Your task to perform on an android device: turn off notifications in google photos Image 0: 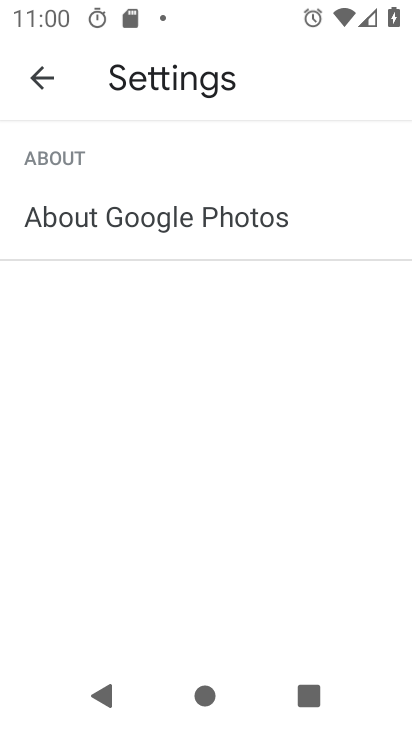
Step 0: press home button
Your task to perform on an android device: turn off notifications in google photos Image 1: 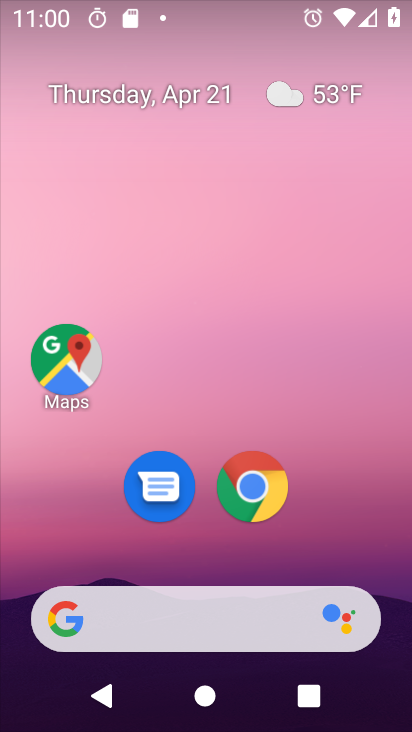
Step 1: drag from (388, 576) to (350, 172)
Your task to perform on an android device: turn off notifications in google photos Image 2: 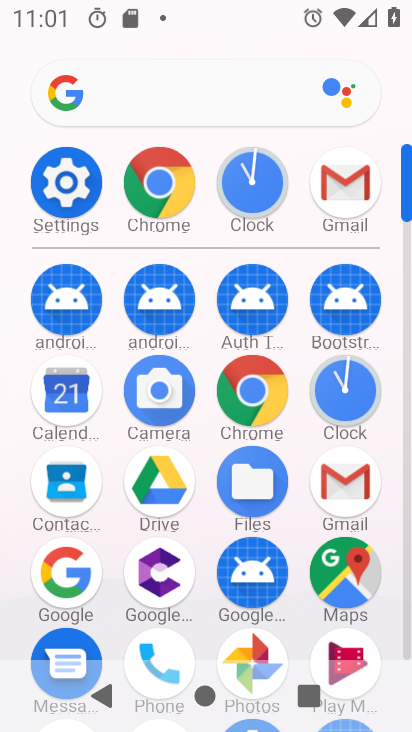
Step 2: click (259, 637)
Your task to perform on an android device: turn off notifications in google photos Image 3: 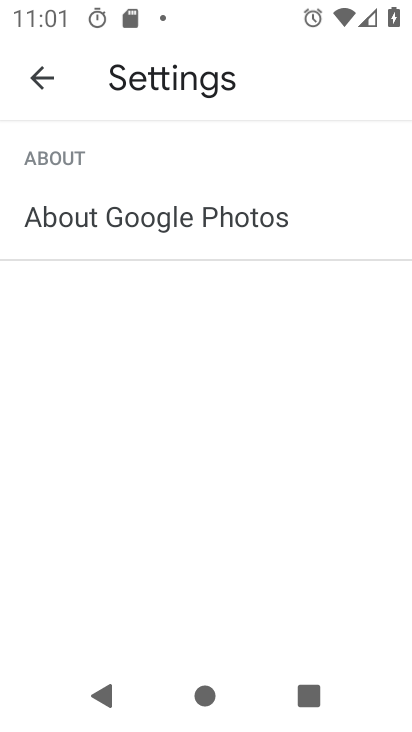
Step 3: click (39, 80)
Your task to perform on an android device: turn off notifications in google photos Image 4: 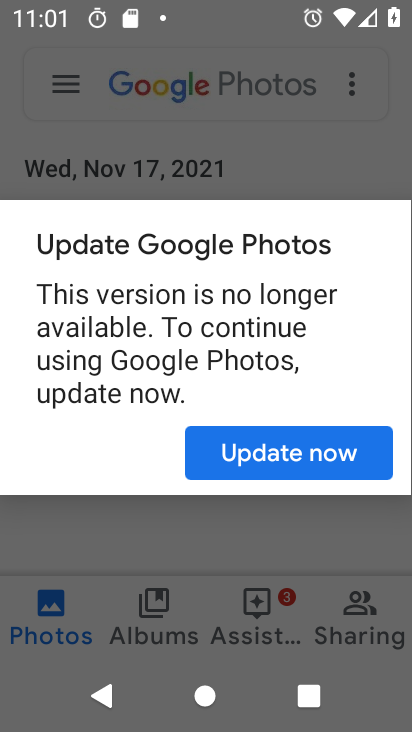
Step 4: click (285, 445)
Your task to perform on an android device: turn off notifications in google photos Image 5: 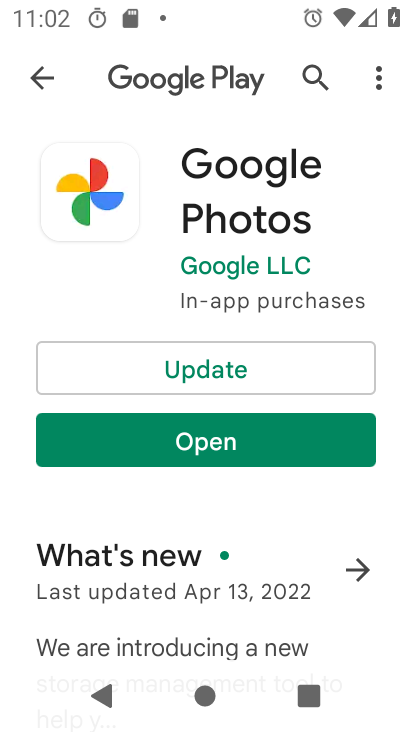
Step 5: click (245, 374)
Your task to perform on an android device: turn off notifications in google photos Image 6: 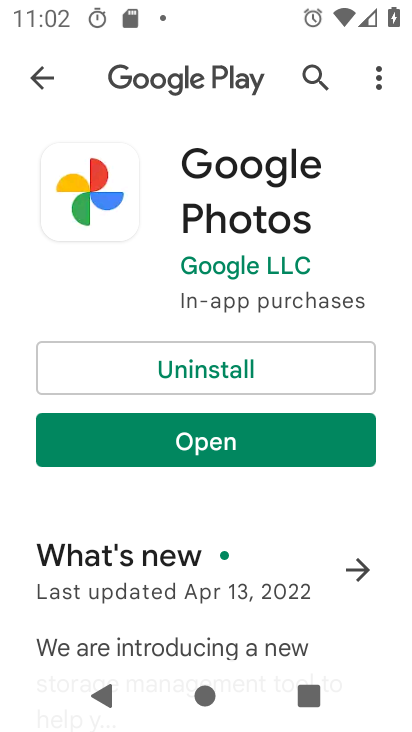
Step 6: click (253, 441)
Your task to perform on an android device: turn off notifications in google photos Image 7: 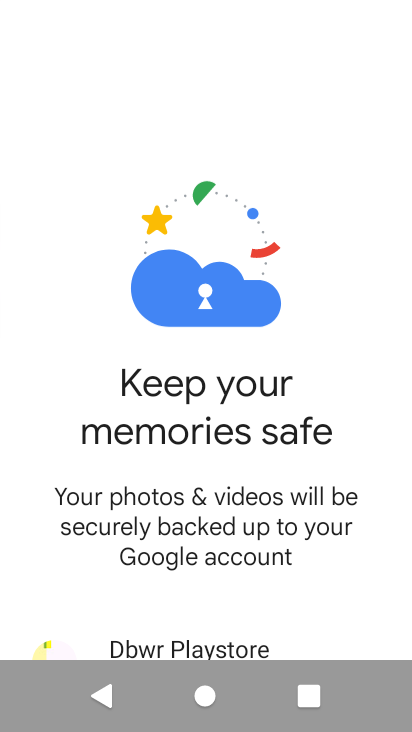
Step 7: press back button
Your task to perform on an android device: turn off notifications in google photos Image 8: 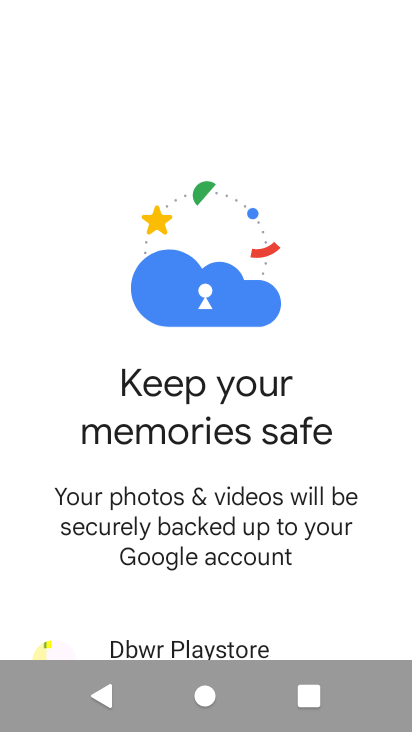
Step 8: drag from (368, 623) to (350, 396)
Your task to perform on an android device: turn off notifications in google photos Image 9: 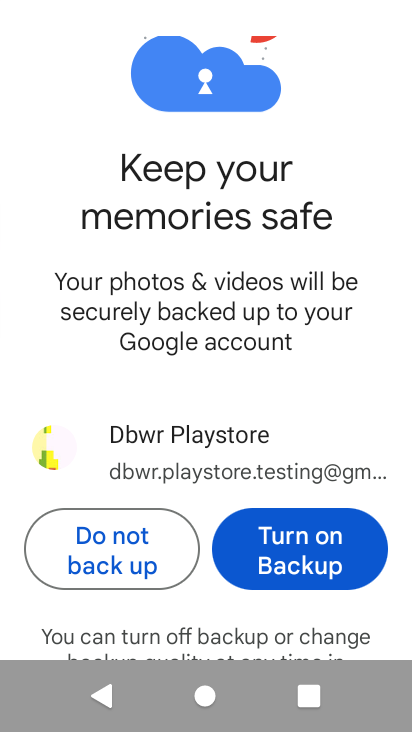
Step 9: click (305, 553)
Your task to perform on an android device: turn off notifications in google photos Image 10: 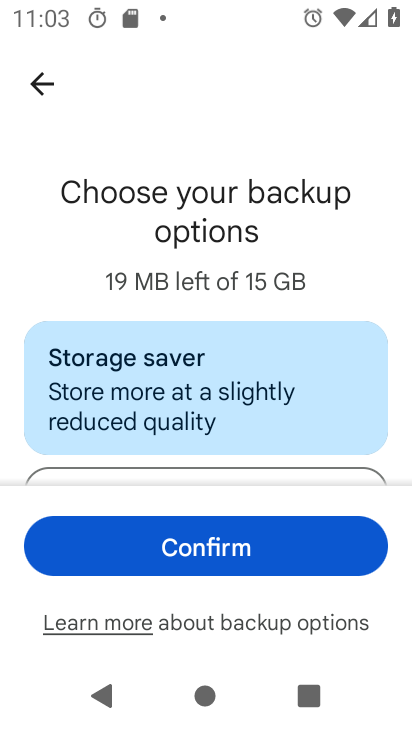
Step 10: click (268, 545)
Your task to perform on an android device: turn off notifications in google photos Image 11: 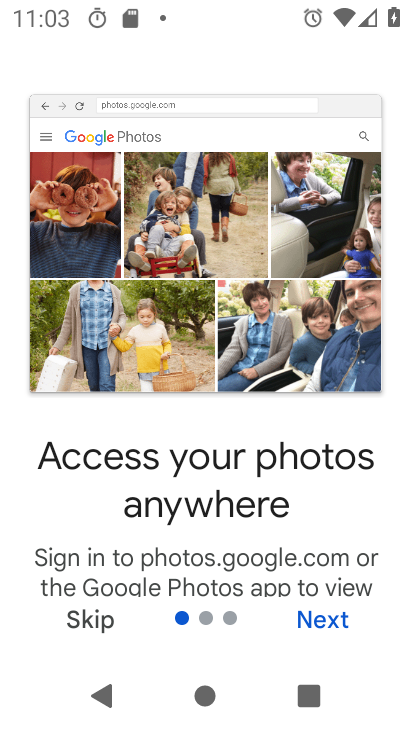
Step 11: click (316, 611)
Your task to perform on an android device: turn off notifications in google photos Image 12: 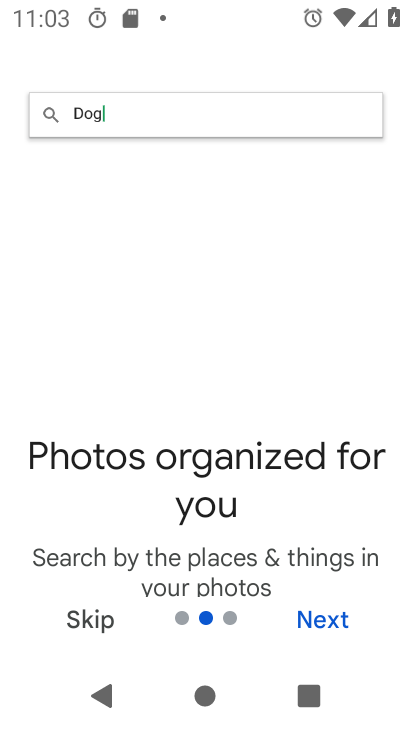
Step 12: click (309, 604)
Your task to perform on an android device: turn off notifications in google photos Image 13: 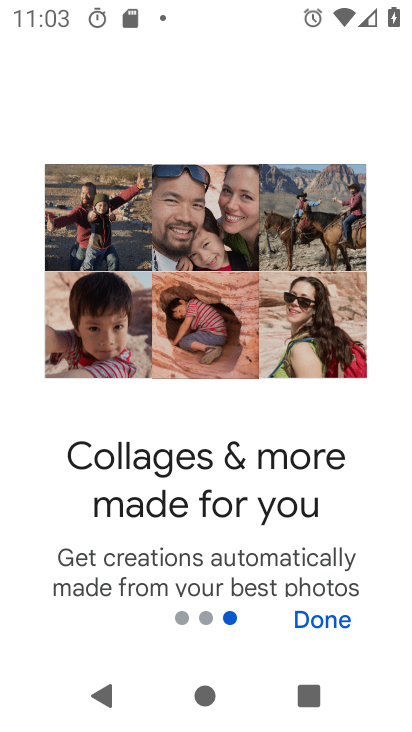
Step 13: click (309, 607)
Your task to perform on an android device: turn off notifications in google photos Image 14: 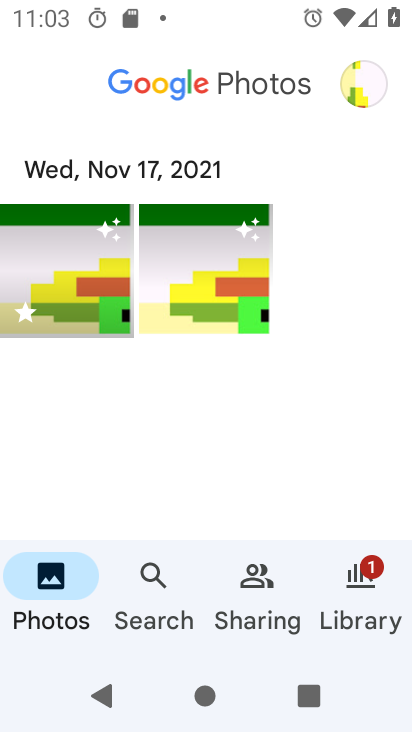
Step 14: task complete